Your task to perform on an android device: set the timer Image 0: 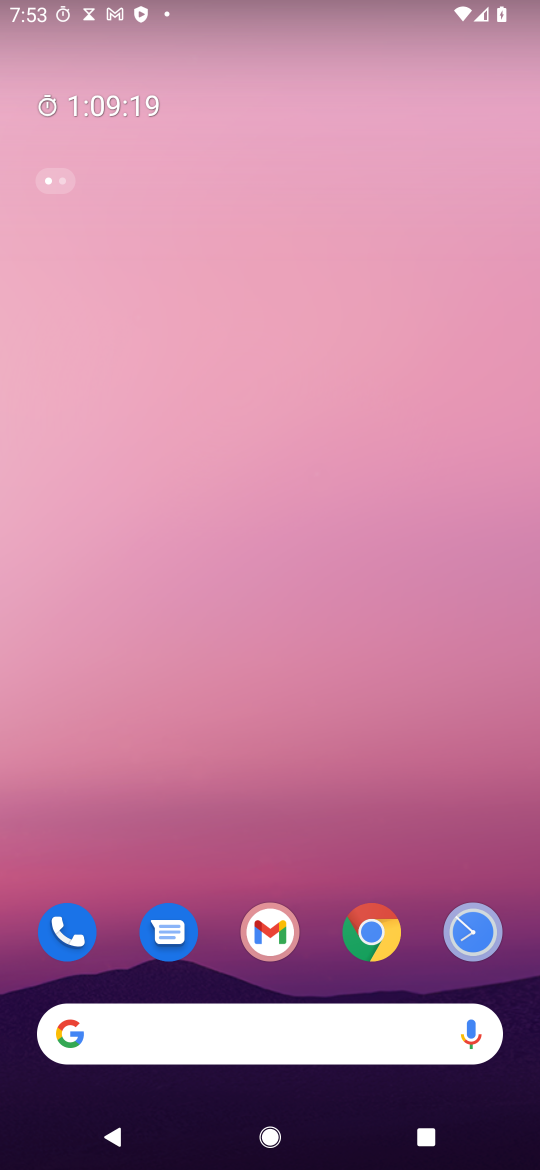
Step 0: drag from (405, 845) to (295, 104)
Your task to perform on an android device: set the timer Image 1: 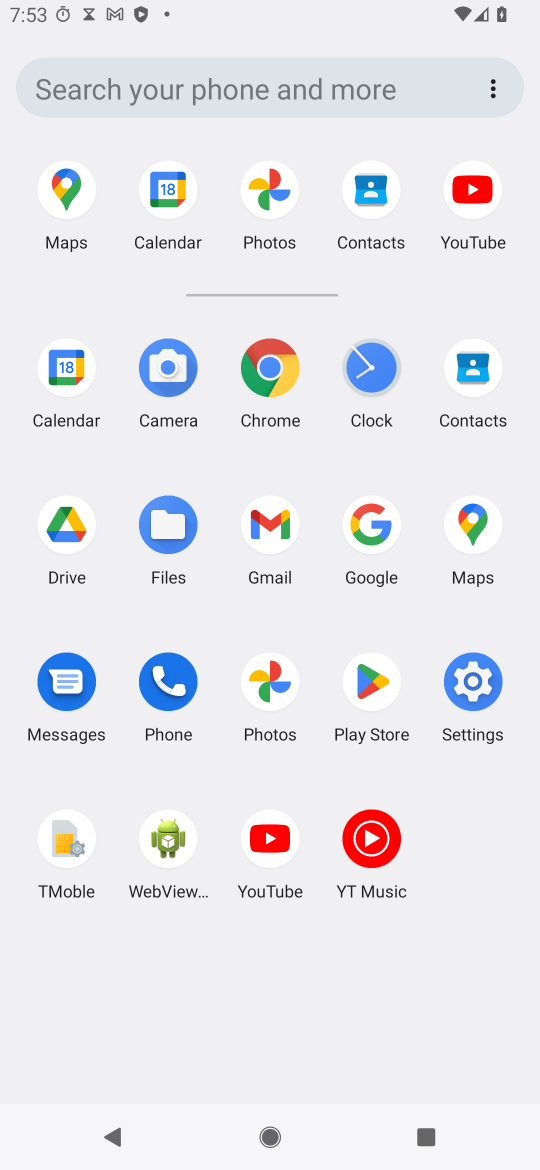
Step 1: click (380, 380)
Your task to perform on an android device: set the timer Image 2: 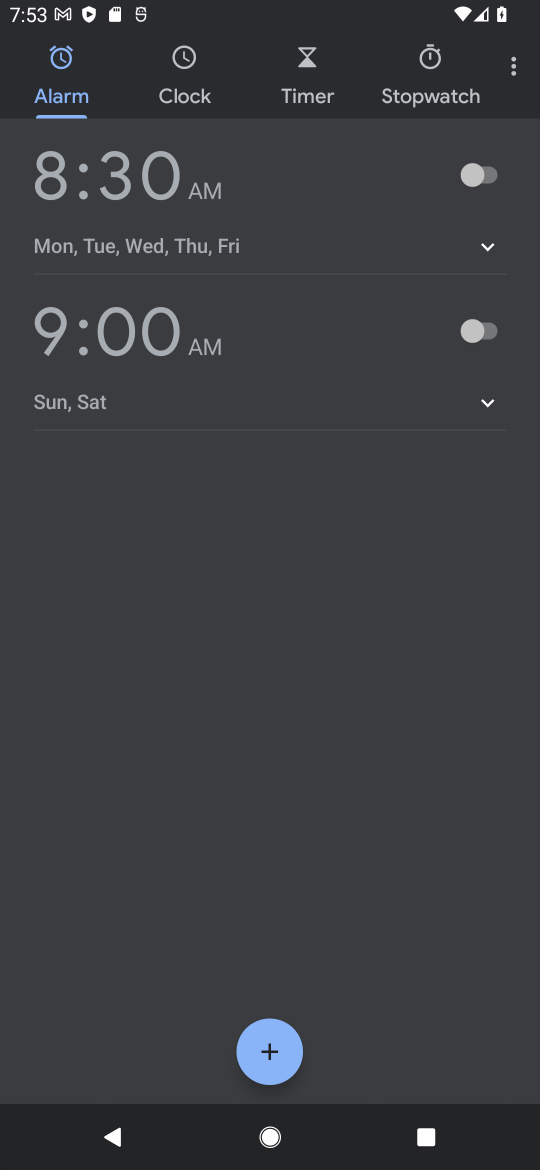
Step 2: click (305, 72)
Your task to perform on an android device: set the timer Image 3: 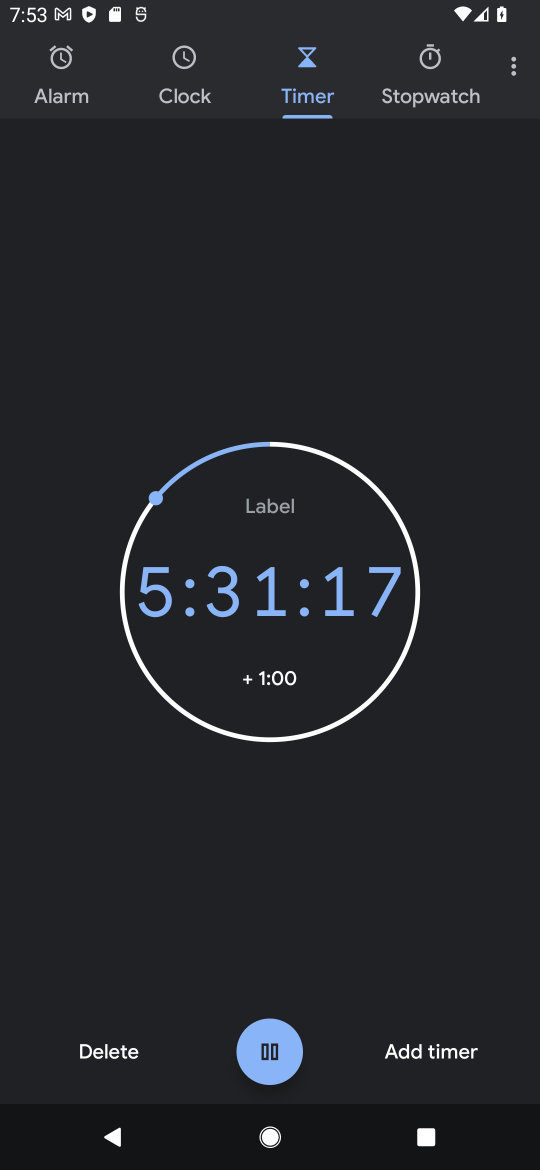
Step 3: task complete